Your task to perform on an android device: Open internet settings Image 0: 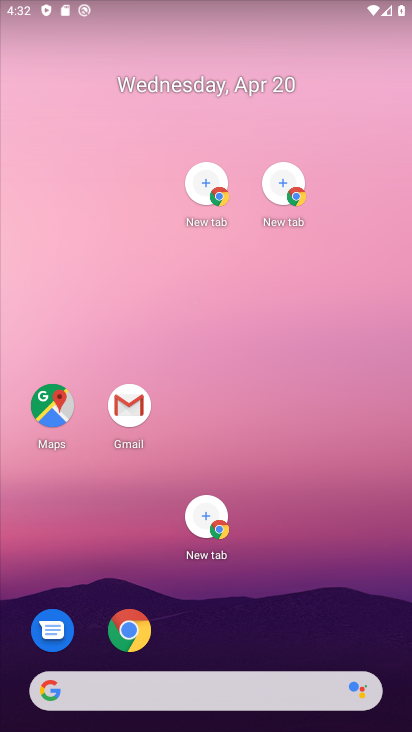
Step 0: drag from (267, 429) to (242, 112)
Your task to perform on an android device: Open internet settings Image 1: 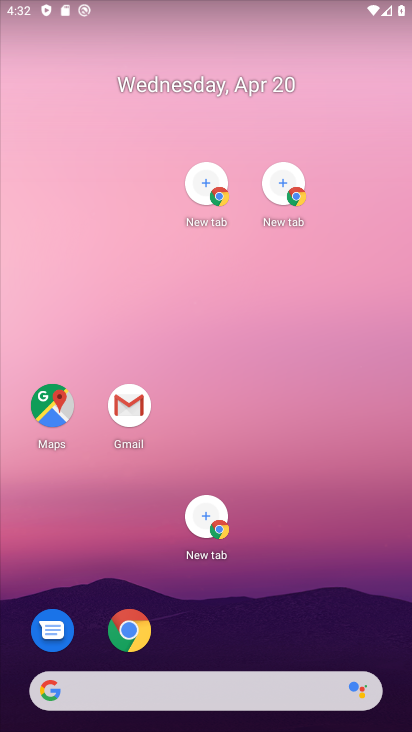
Step 1: drag from (290, 696) to (139, 170)
Your task to perform on an android device: Open internet settings Image 2: 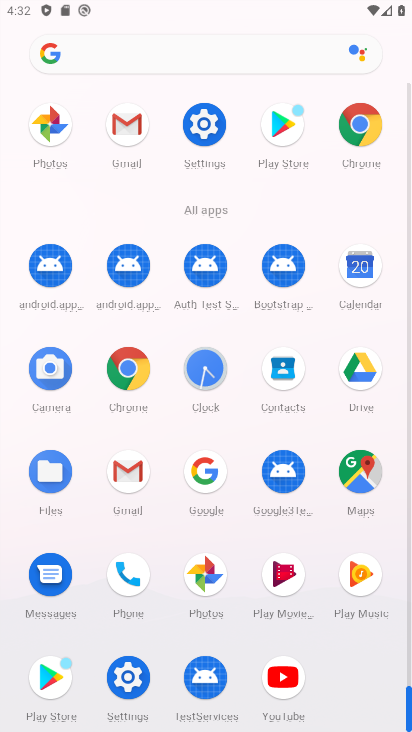
Step 2: click (208, 128)
Your task to perform on an android device: Open internet settings Image 3: 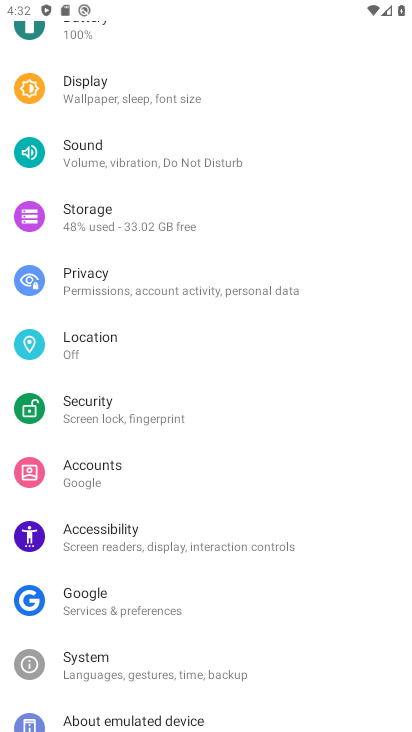
Step 3: click (208, 128)
Your task to perform on an android device: Open internet settings Image 4: 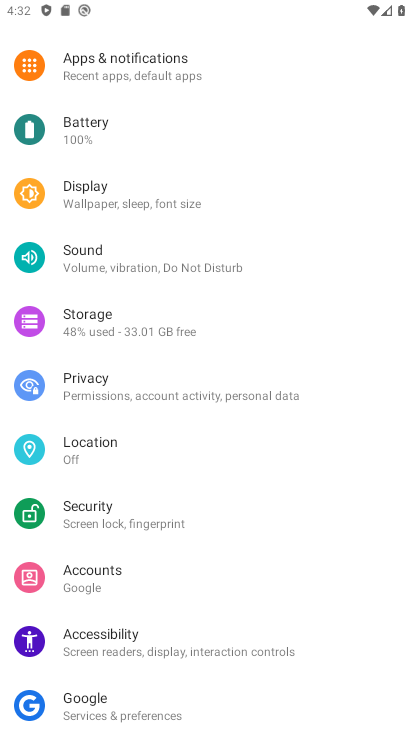
Step 4: drag from (202, 84) to (163, 476)
Your task to perform on an android device: Open internet settings Image 5: 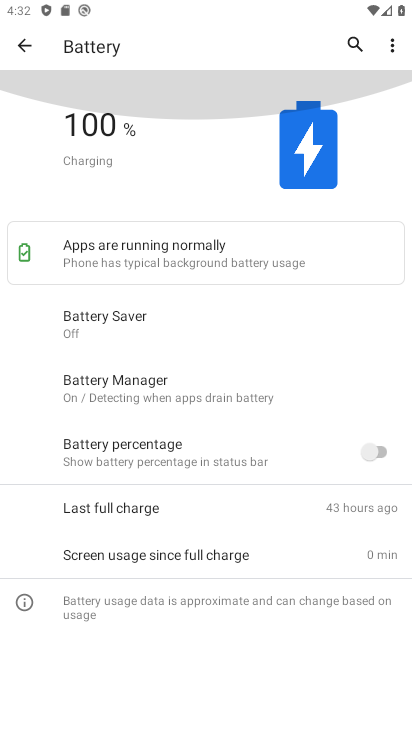
Step 5: drag from (179, 264) to (135, 631)
Your task to perform on an android device: Open internet settings Image 6: 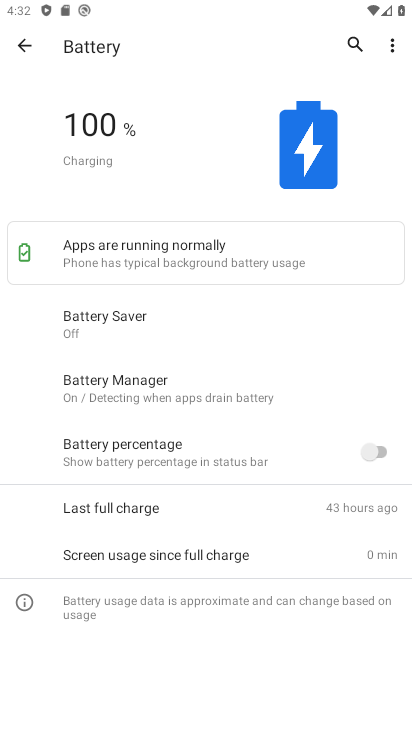
Step 6: click (26, 40)
Your task to perform on an android device: Open internet settings Image 7: 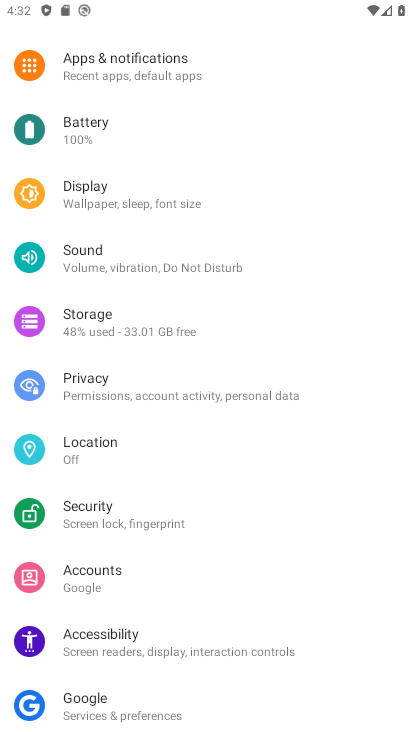
Step 7: drag from (98, 144) to (176, 717)
Your task to perform on an android device: Open internet settings Image 8: 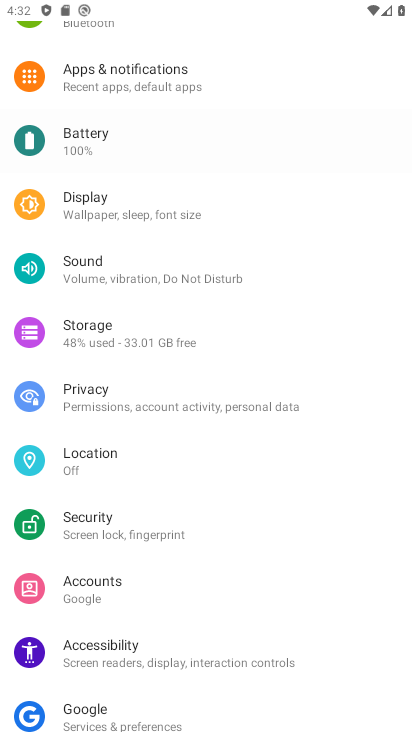
Step 8: drag from (133, 510) to (145, 578)
Your task to perform on an android device: Open internet settings Image 9: 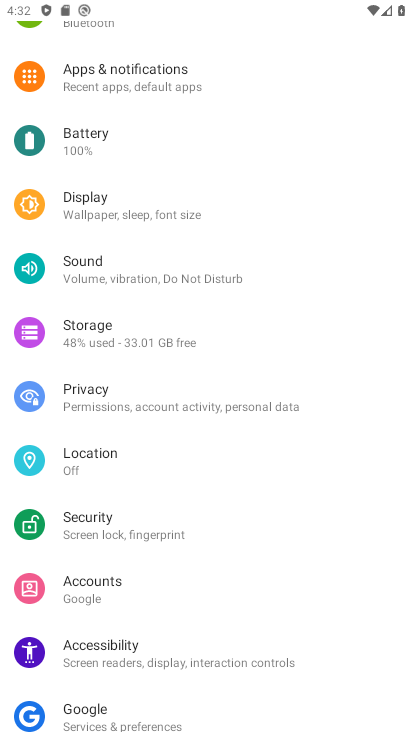
Step 9: drag from (84, 108) to (114, 633)
Your task to perform on an android device: Open internet settings Image 10: 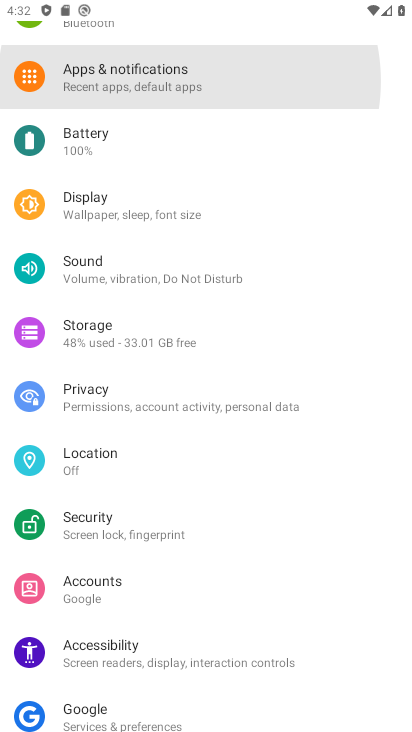
Step 10: drag from (176, 379) to (183, 479)
Your task to perform on an android device: Open internet settings Image 11: 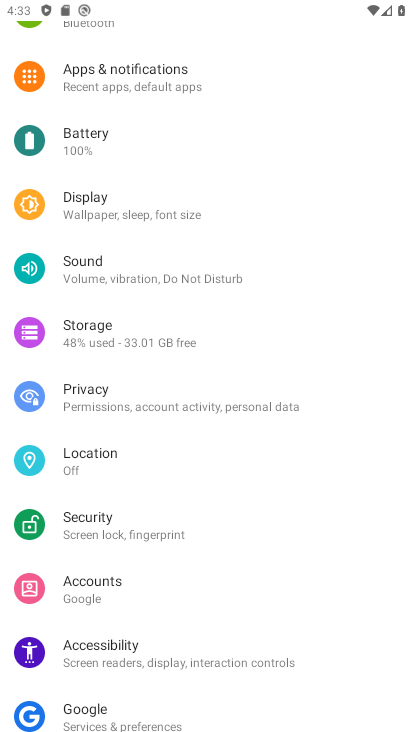
Step 11: drag from (120, 67) to (206, 522)
Your task to perform on an android device: Open internet settings Image 12: 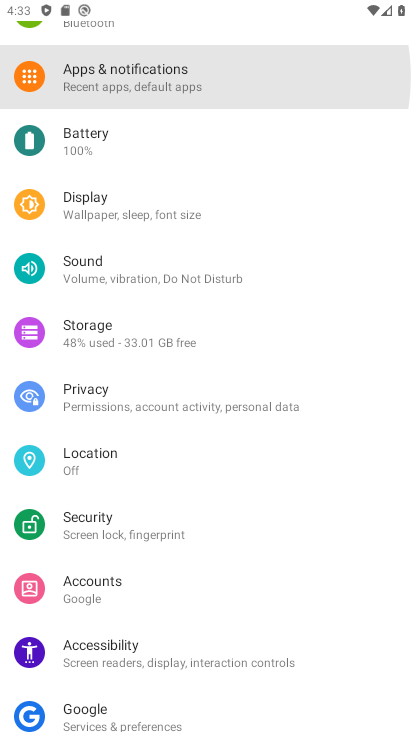
Step 12: drag from (163, 278) to (198, 614)
Your task to perform on an android device: Open internet settings Image 13: 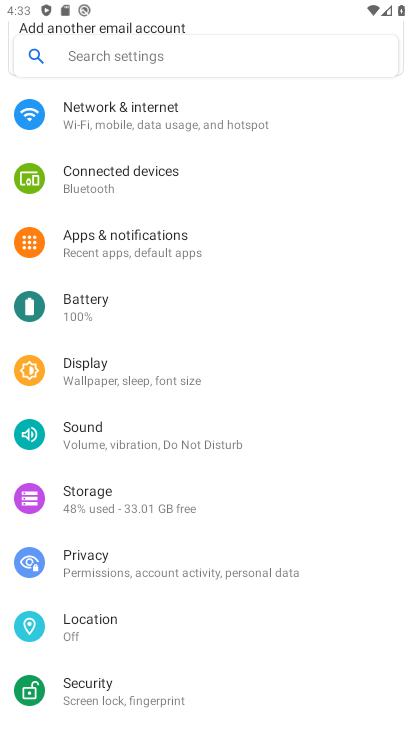
Step 13: drag from (113, 266) to (176, 629)
Your task to perform on an android device: Open internet settings Image 14: 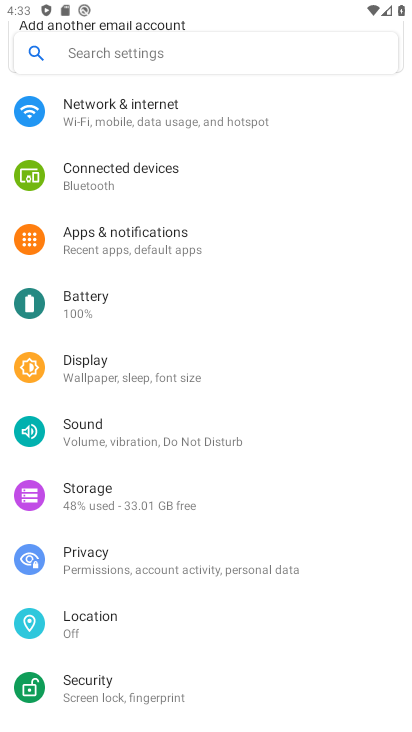
Step 14: click (127, 117)
Your task to perform on an android device: Open internet settings Image 15: 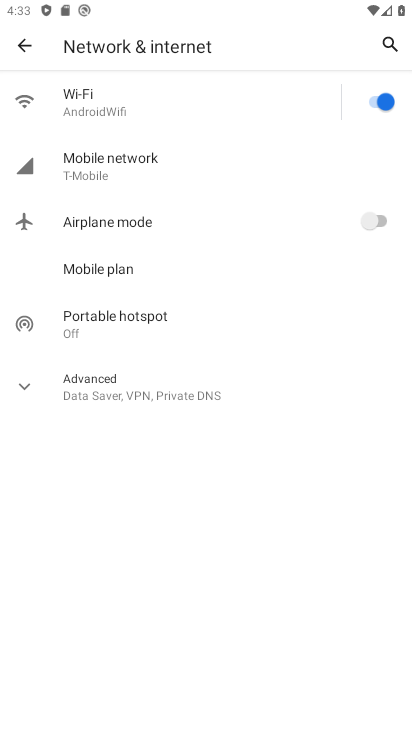
Step 15: click (127, 117)
Your task to perform on an android device: Open internet settings Image 16: 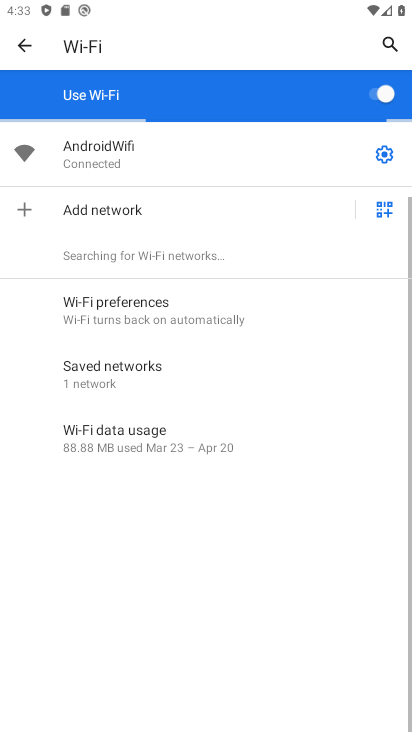
Step 16: task complete